Your task to perform on an android device: change text size in settings app Image 0: 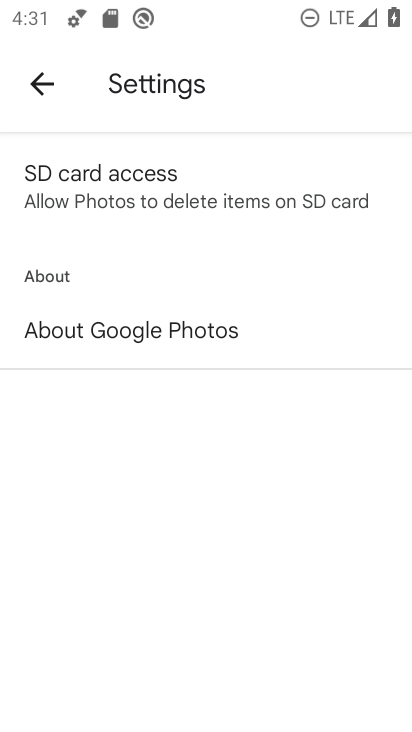
Step 0: press home button
Your task to perform on an android device: change text size in settings app Image 1: 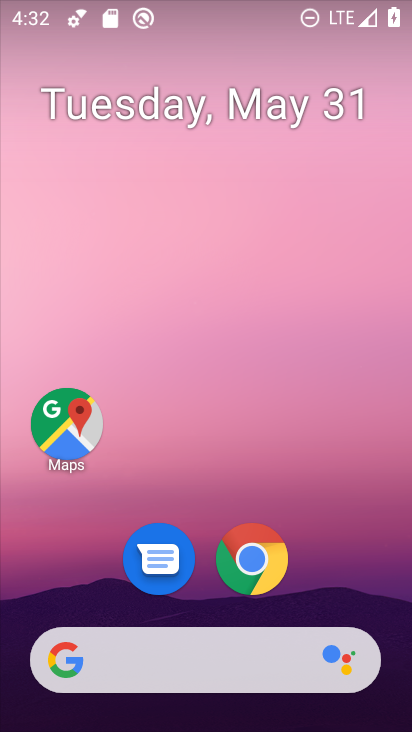
Step 1: drag from (257, 720) to (263, 181)
Your task to perform on an android device: change text size in settings app Image 2: 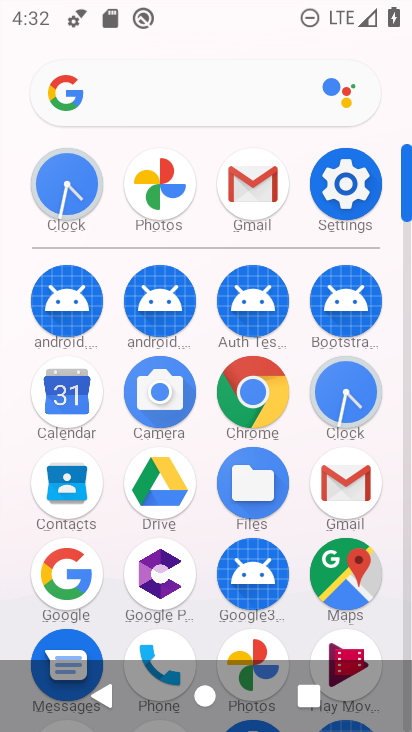
Step 2: click (352, 180)
Your task to perform on an android device: change text size in settings app Image 3: 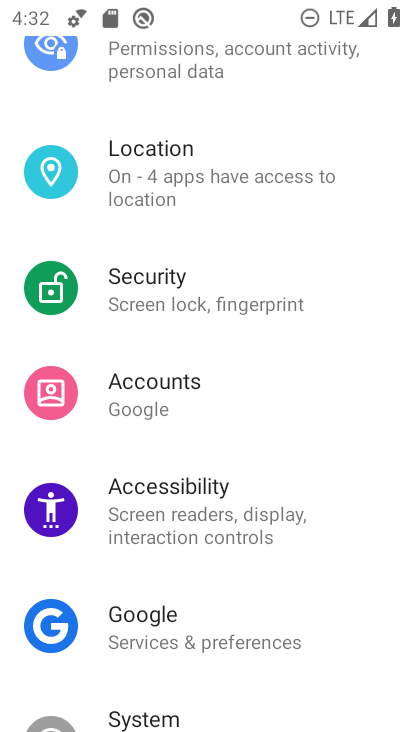
Step 3: drag from (246, 142) to (250, 556)
Your task to perform on an android device: change text size in settings app Image 4: 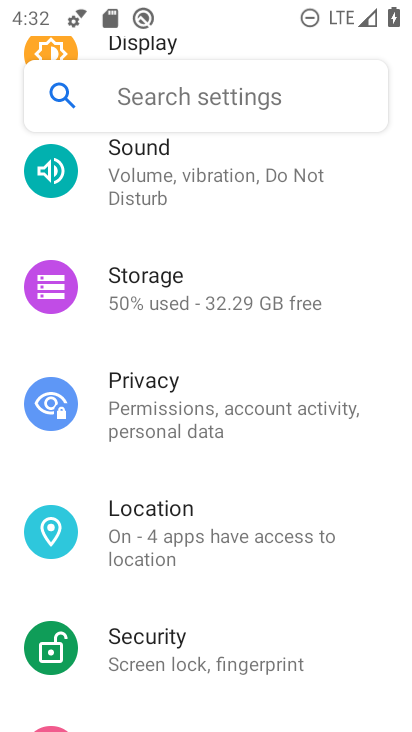
Step 4: drag from (254, 162) to (227, 646)
Your task to perform on an android device: change text size in settings app Image 5: 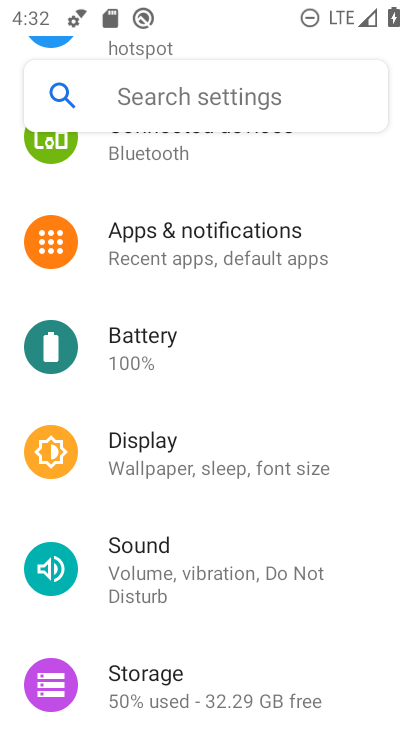
Step 5: click (230, 469)
Your task to perform on an android device: change text size in settings app Image 6: 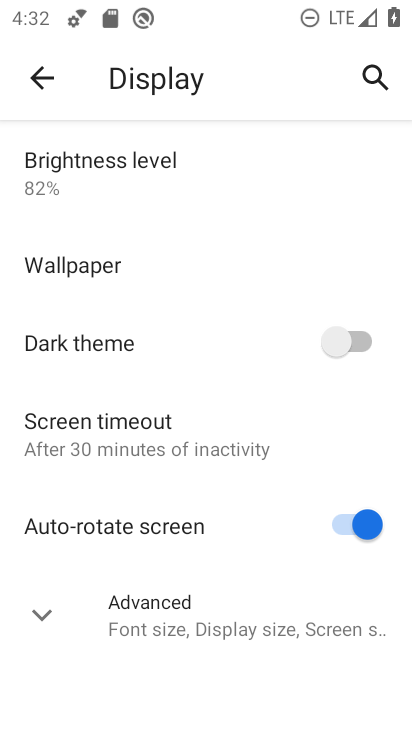
Step 6: click (206, 627)
Your task to perform on an android device: change text size in settings app Image 7: 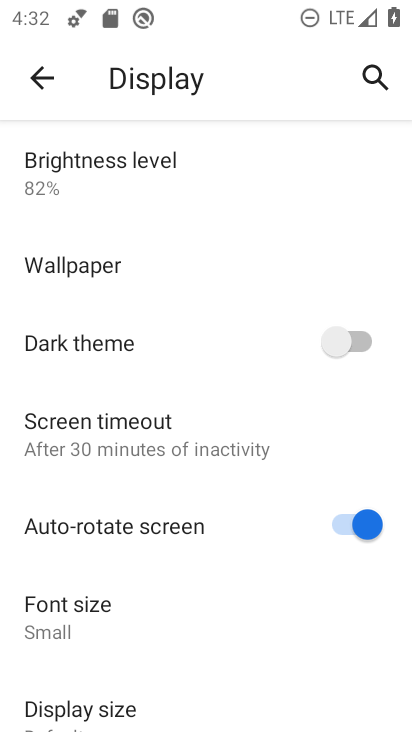
Step 7: click (85, 607)
Your task to perform on an android device: change text size in settings app Image 8: 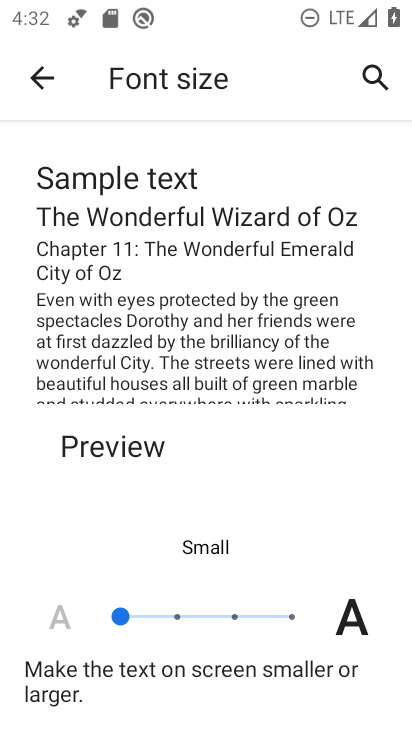
Step 8: click (181, 613)
Your task to perform on an android device: change text size in settings app Image 9: 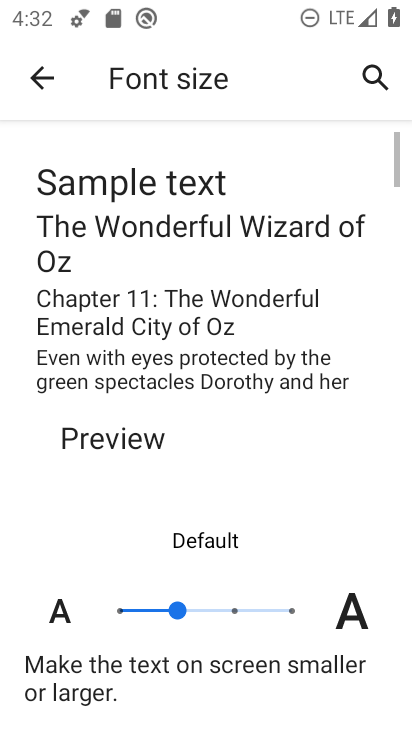
Step 9: task complete